Your task to perform on an android device: Open Google Chrome and click the shortcut for Amazon.com Image 0: 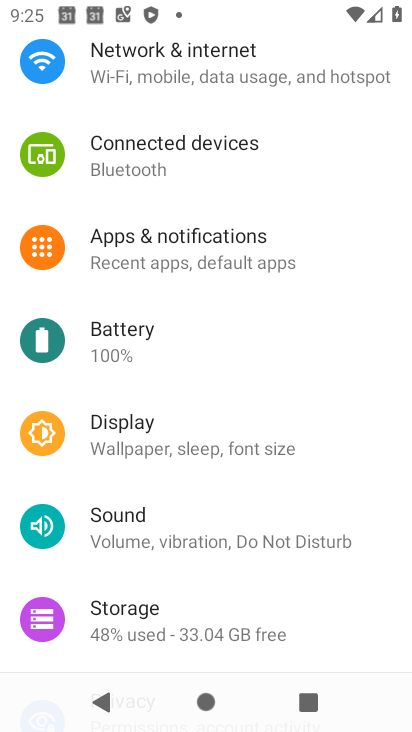
Step 0: press home button
Your task to perform on an android device: Open Google Chrome and click the shortcut for Amazon.com Image 1: 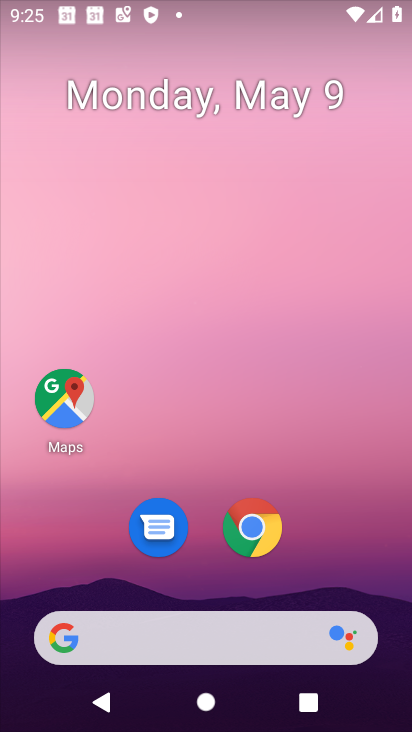
Step 1: click (239, 542)
Your task to perform on an android device: Open Google Chrome and click the shortcut for Amazon.com Image 2: 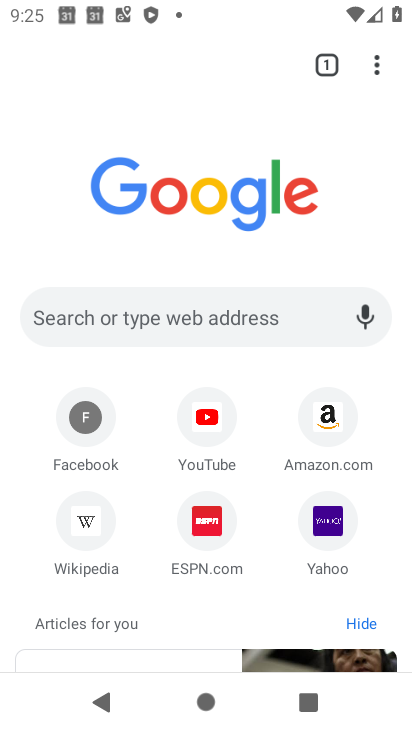
Step 2: click (345, 421)
Your task to perform on an android device: Open Google Chrome and click the shortcut for Amazon.com Image 3: 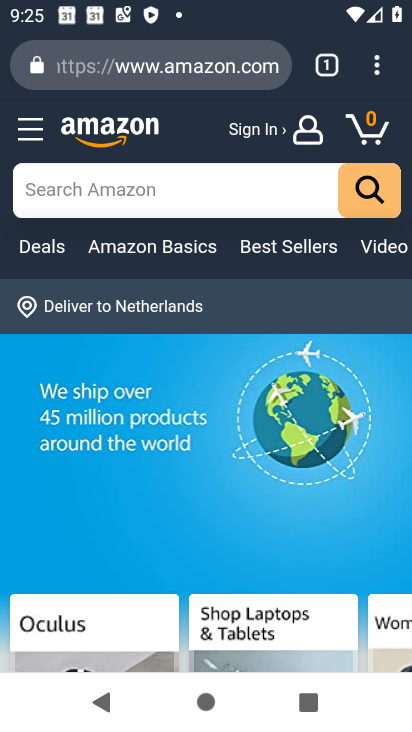
Step 3: task complete